Your task to perform on an android device: What is the recent news? Image 0: 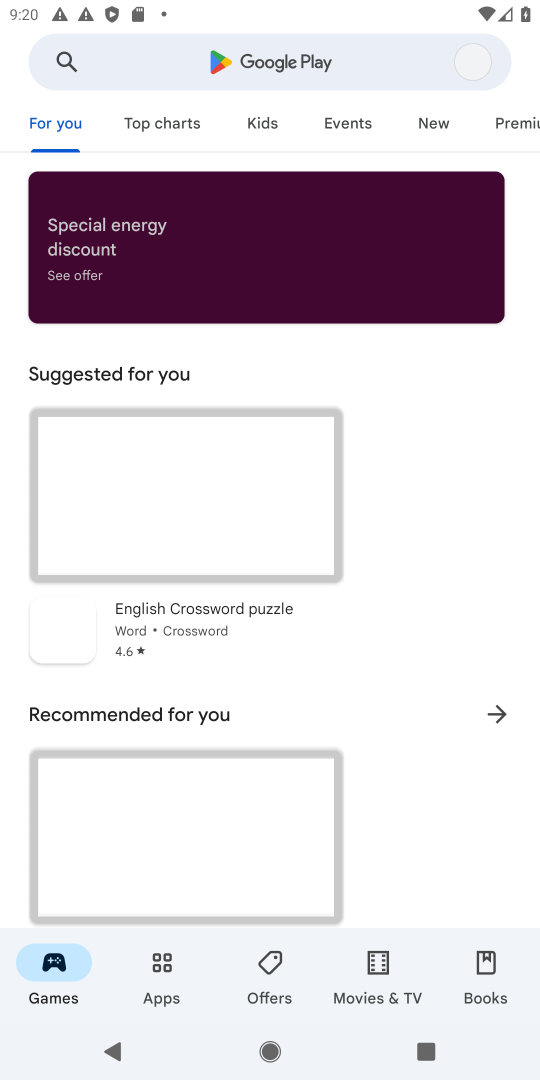
Step 0: press home button
Your task to perform on an android device: What is the recent news? Image 1: 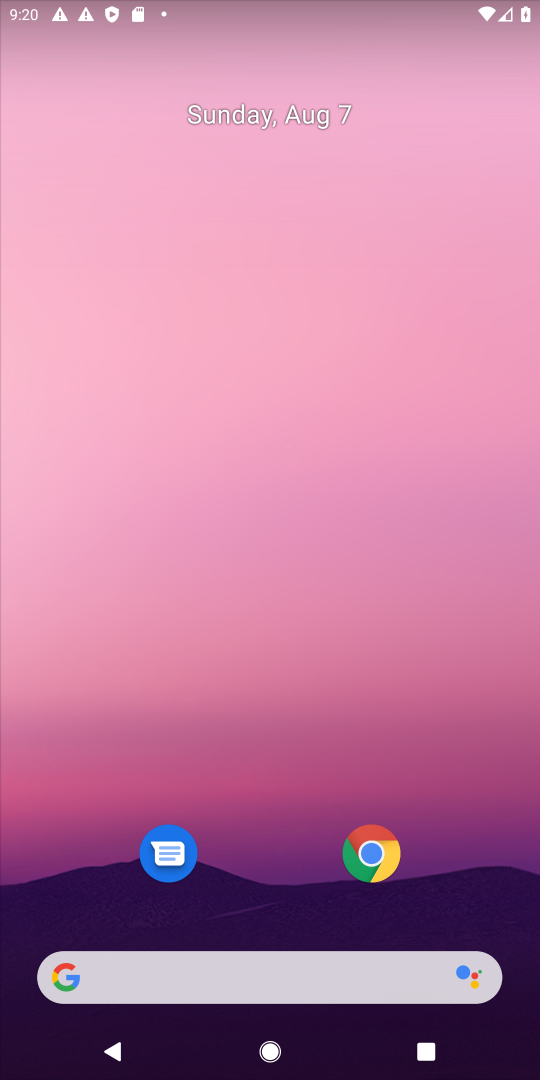
Step 1: drag from (0, 388) to (538, 444)
Your task to perform on an android device: What is the recent news? Image 2: 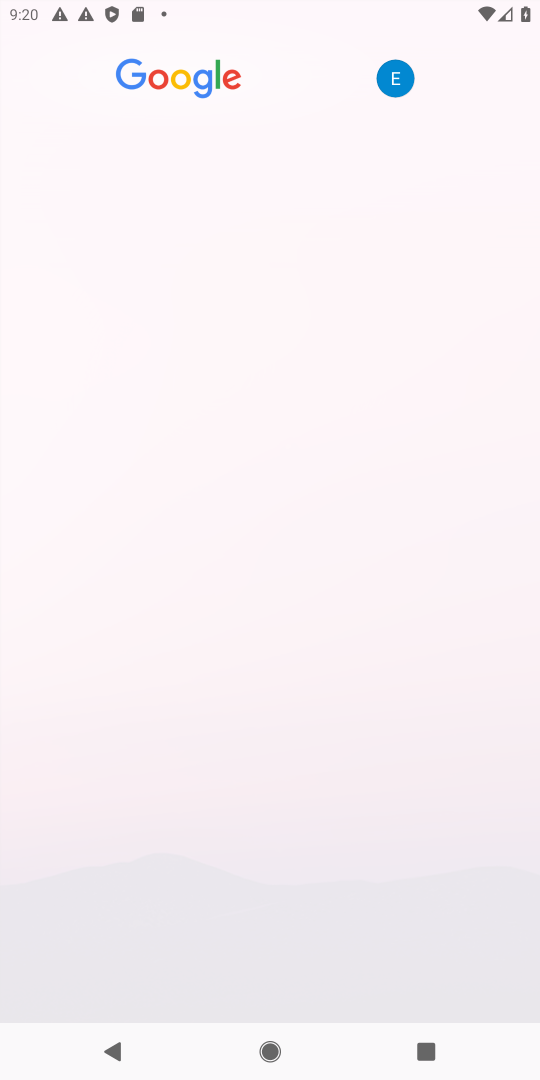
Step 2: click (519, 445)
Your task to perform on an android device: What is the recent news? Image 3: 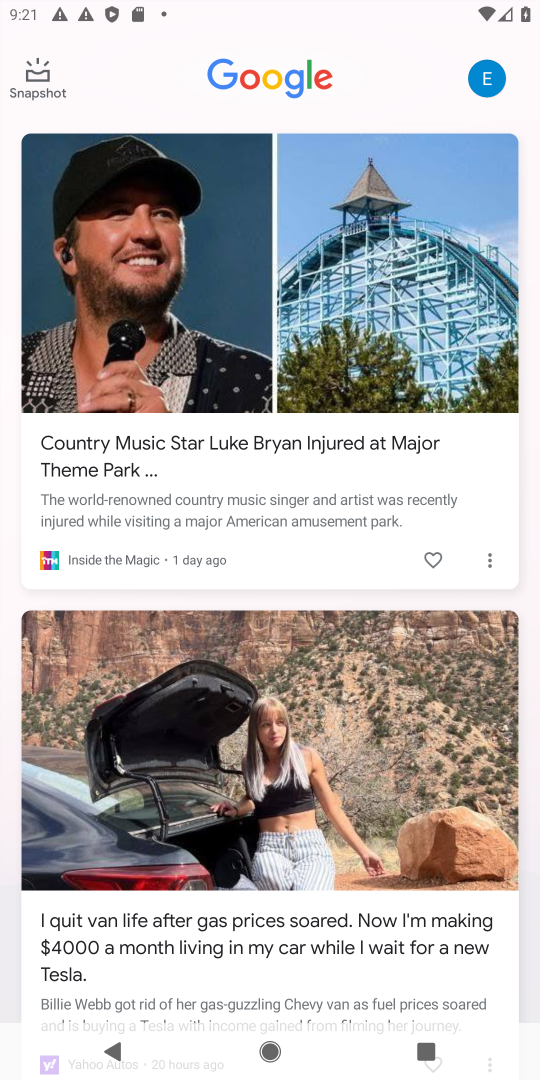
Step 3: task complete